Your task to perform on an android device: Go to display settings Image 0: 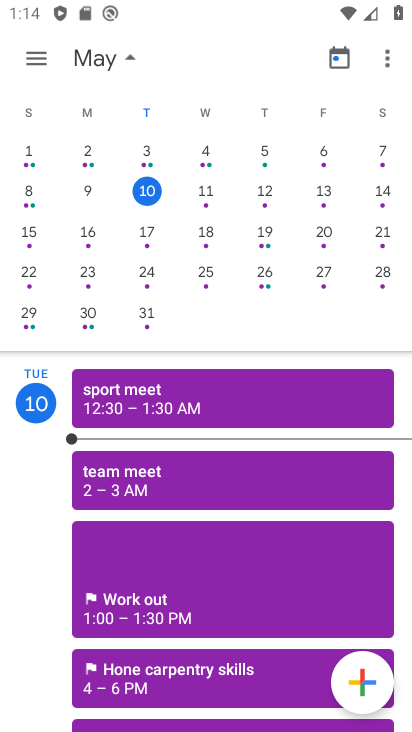
Step 0: press home button
Your task to perform on an android device: Go to display settings Image 1: 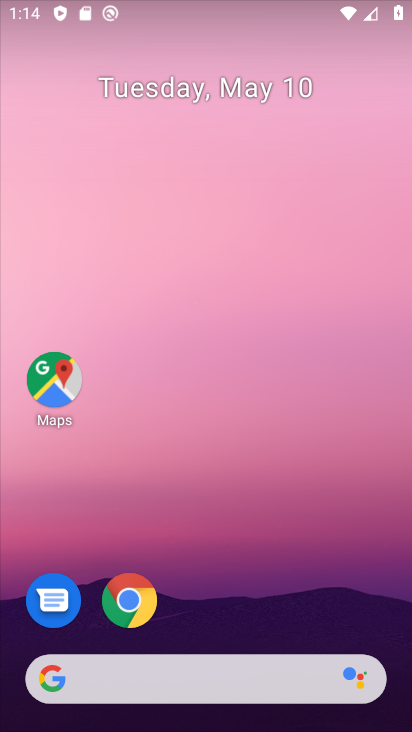
Step 1: drag from (215, 580) to (218, 134)
Your task to perform on an android device: Go to display settings Image 2: 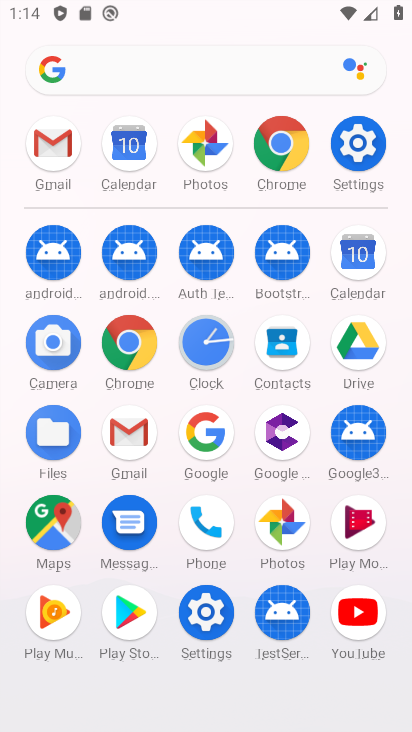
Step 2: click (373, 133)
Your task to perform on an android device: Go to display settings Image 3: 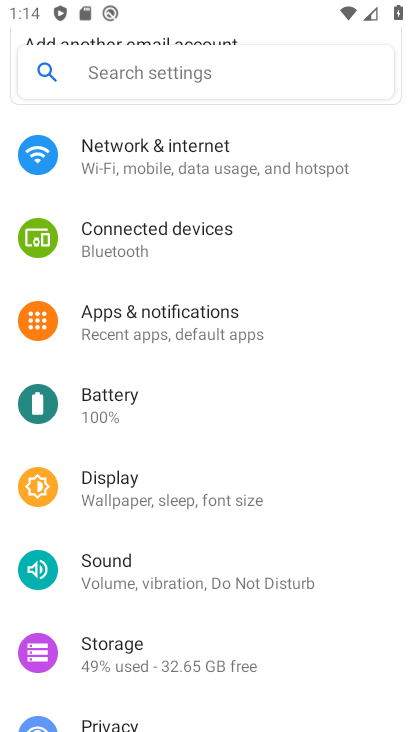
Step 3: click (195, 492)
Your task to perform on an android device: Go to display settings Image 4: 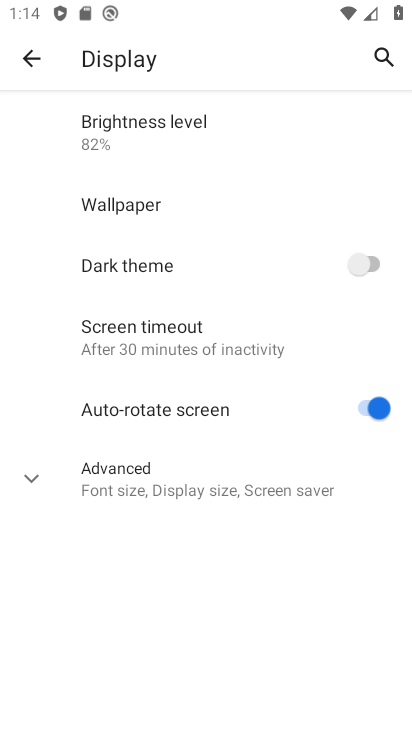
Step 4: click (207, 471)
Your task to perform on an android device: Go to display settings Image 5: 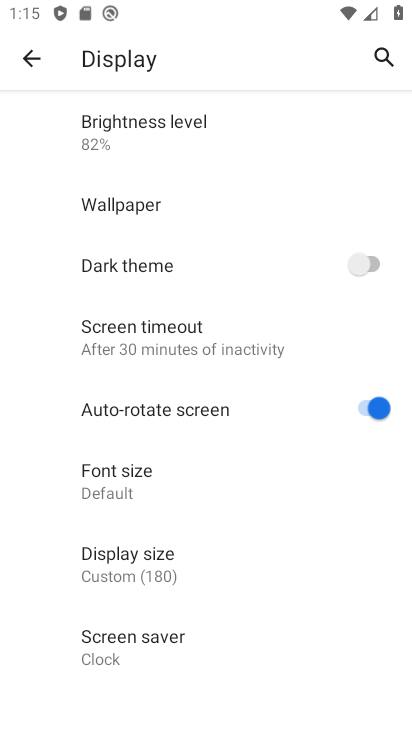
Step 5: task complete